Your task to perform on an android device: Search for Mexican restaurants on Maps Image 0: 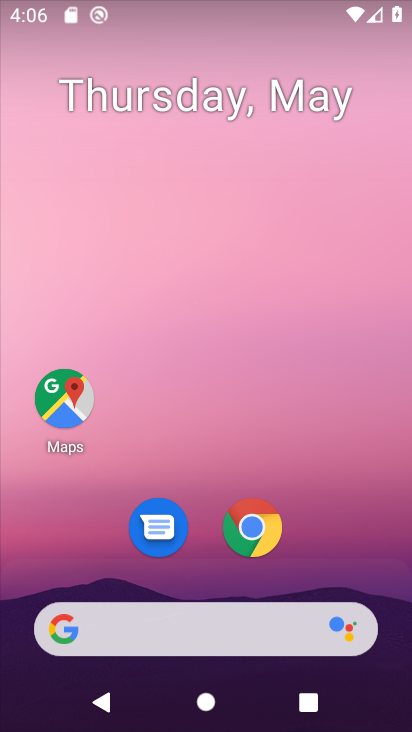
Step 0: click (66, 393)
Your task to perform on an android device: Search for Mexican restaurants on Maps Image 1: 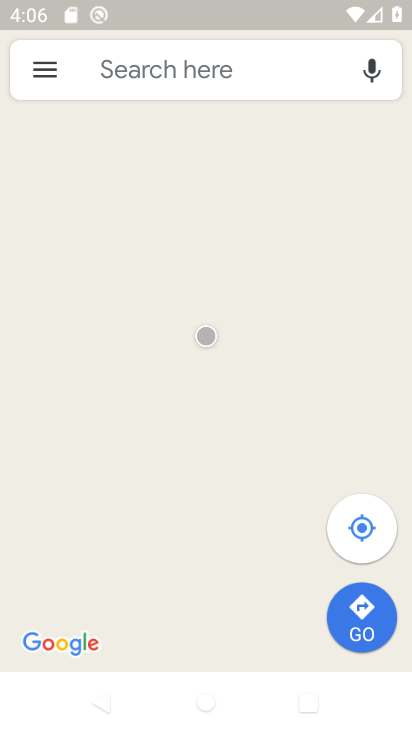
Step 1: click (172, 70)
Your task to perform on an android device: Search for Mexican restaurants on Maps Image 2: 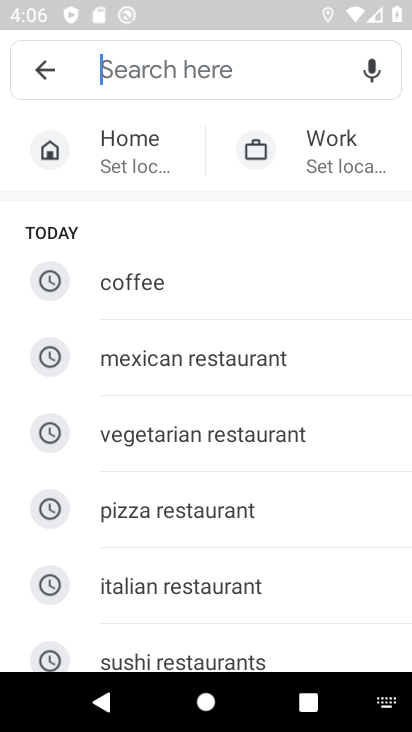
Step 2: click (230, 366)
Your task to perform on an android device: Search for Mexican restaurants on Maps Image 3: 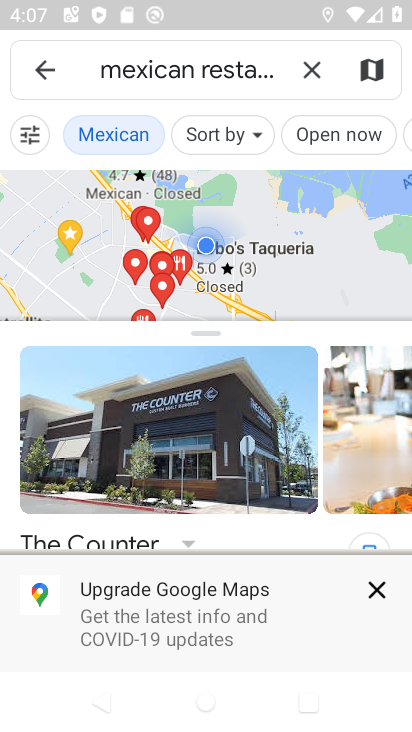
Step 3: task complete